Your task to perform on an android device: turn notification dots off Image 0: 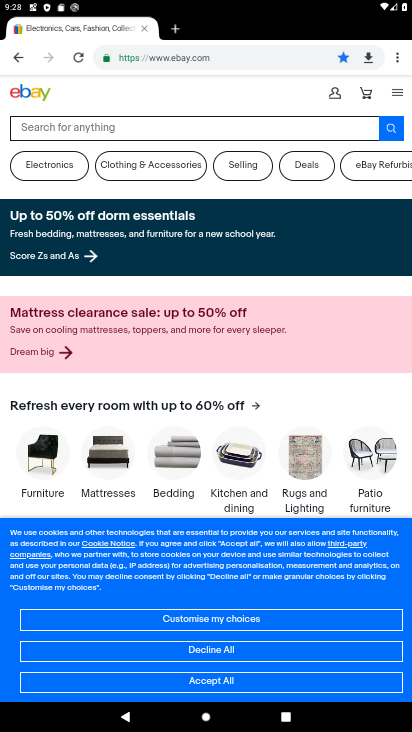
Step 0: drag from (346, 594) to (326, 372)
Your task to perform on an android device: turn notification dots off Image 1: 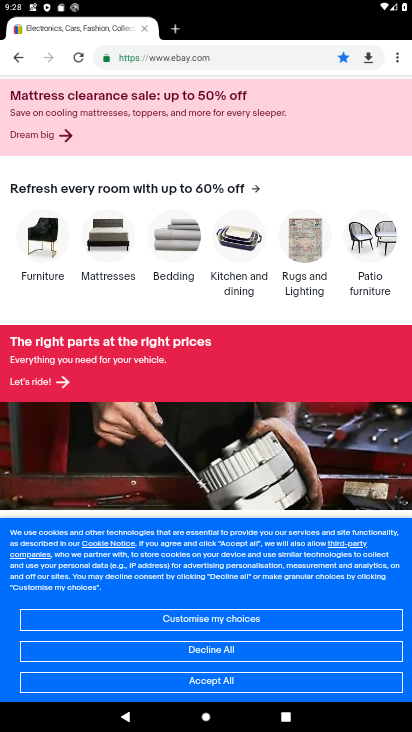
Step 1: press home button
Your task to perform on an android device: turn notification dots off Image 2: 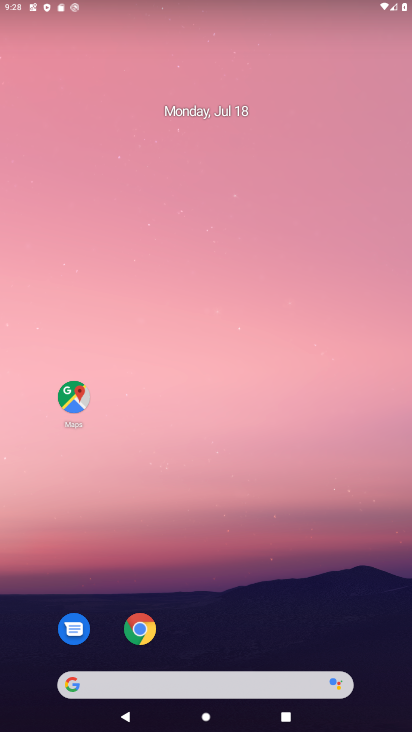
Step 2: drag from (308, 580) to (272, 110)
Your task to perform on an android device: turn notification dots off Image 3: 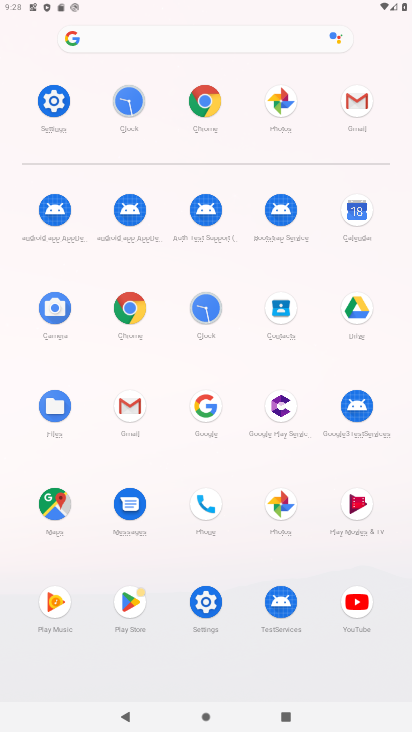
Step 3: click (53, 94)
Your task to perform on an android device: turn notification dots off Image 4: 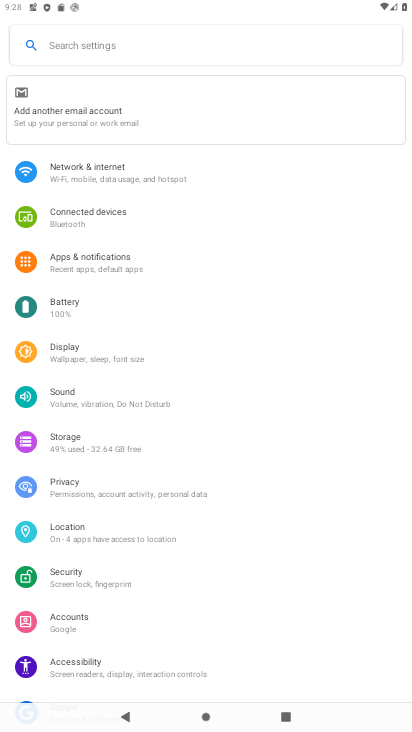
Step 4: click (108, 269)
Your task to perform on an android device: turn notification dots off Image 5: 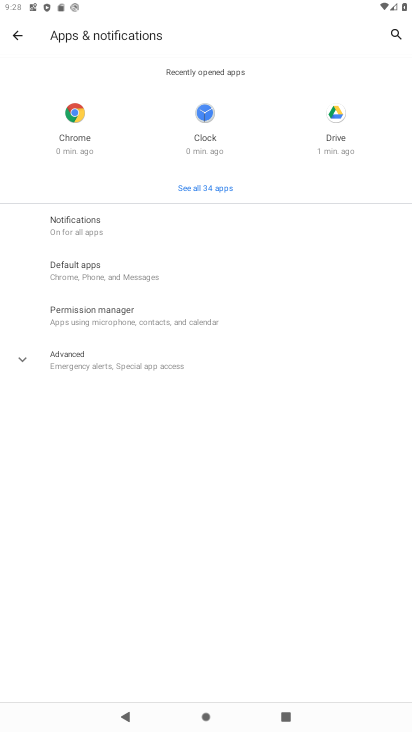
Step 5: click (85, 219)
Your task to perform on an android device: turn notification dots off Image 6: 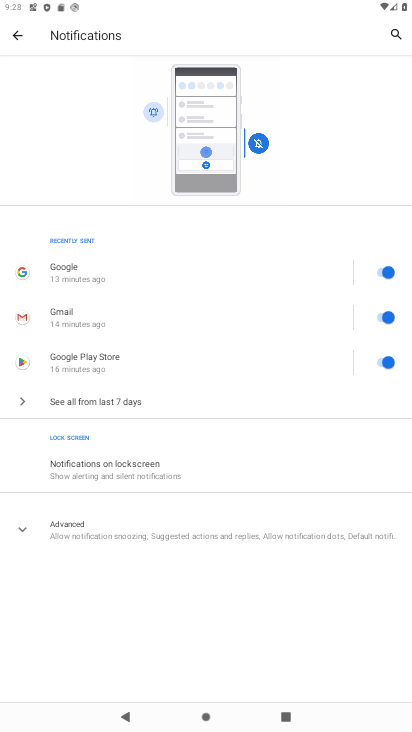
Step 6: click (103, 529)
Your task to perform on an android device: turn notification dots off Image 7: 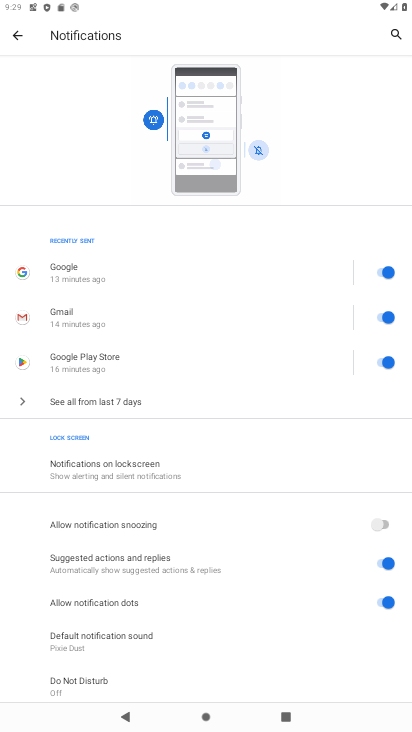
Step 7: click (386, 601)
Your task to perform on an android device: turn notification dots off Image 8: 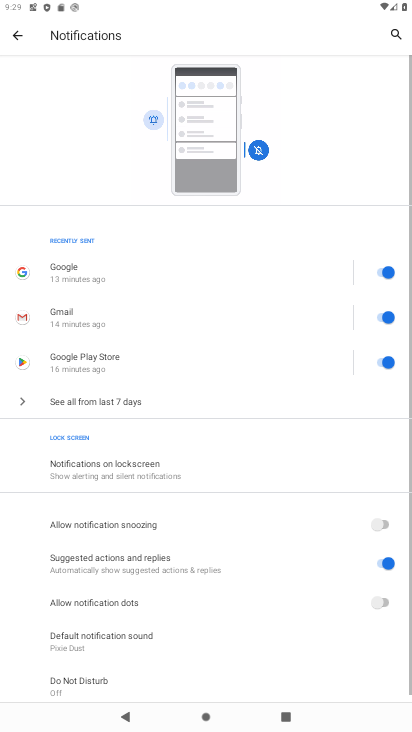
Step 8: task complete